Your task to perform on an android device: open app "Adobe Acrobat Reader: Edit PDF" (install if not already installed), go to login, and select forgot password Image 0: 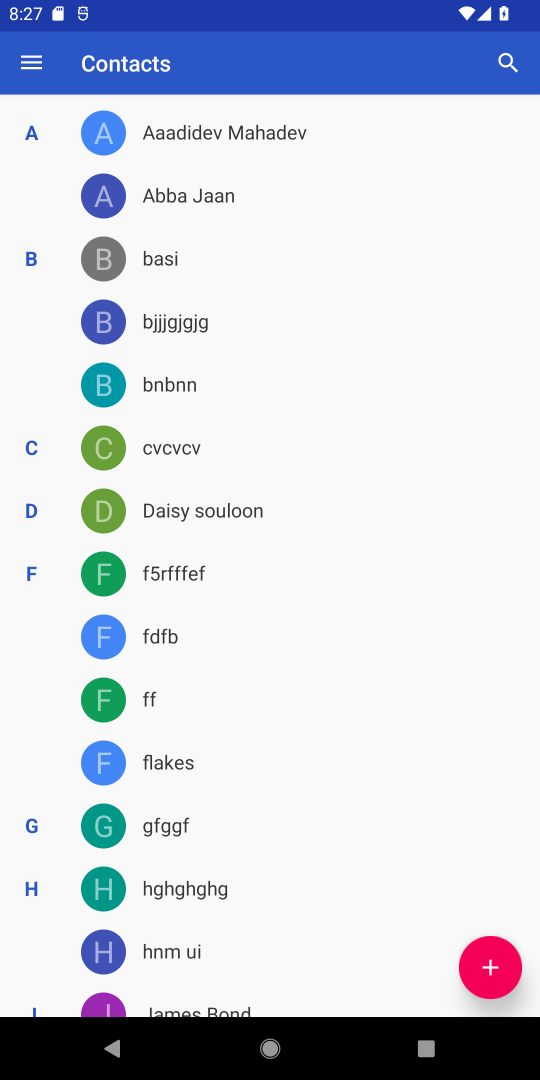
Step 0: press home button
Your task to perform on an android device: open app "Adobe Acrobat Reader: Edit PDF" (install if not already installed), go to login, and select forgot password Image 1: 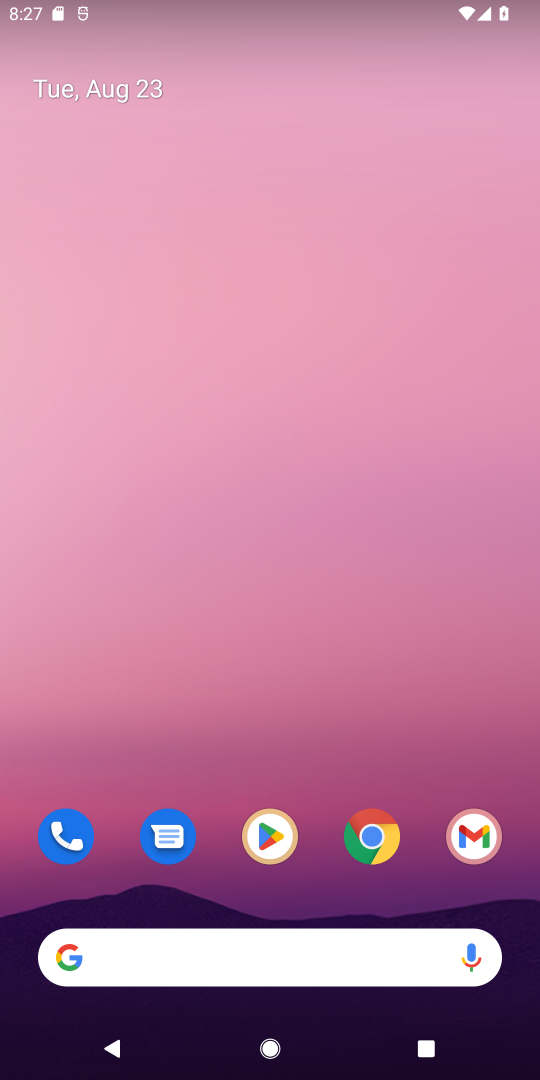
Step 1: click (276, 835)
Your task to perform on an android device: open app "Adobe Acrobat Reader: Edit PDF" (install if not already installed), go to login, and select forgot password Image 2: 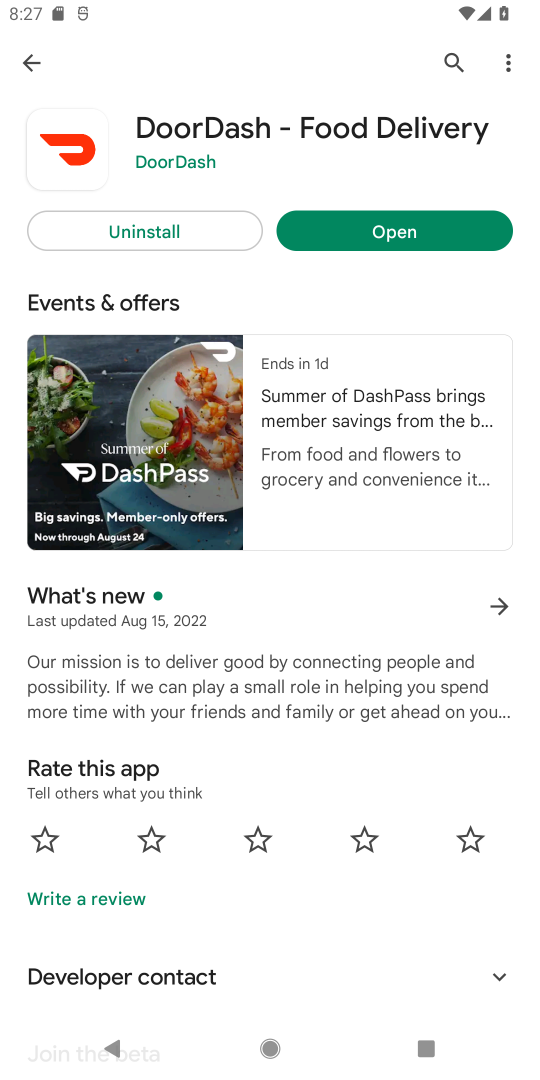
Step 2: click (449, 60)
Your task to perform on an android device: open app "Adobe Acrobat Reader: Edit PDF" (install if not already installed), go to login, and select forgot password Image 3: 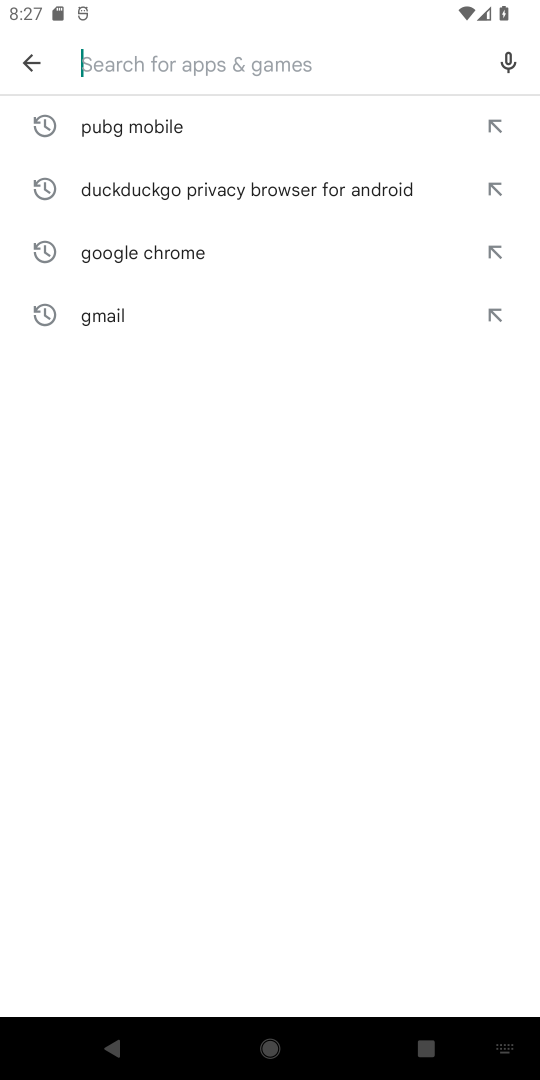
Step 3: type "Adobe Acrobat Reader: Edit PDF"
Your task to perform on an android device: open app "Adobe Acrobat Reader: Edit PDF" (install if not already installed), go to login, and select forgot password Image 4: 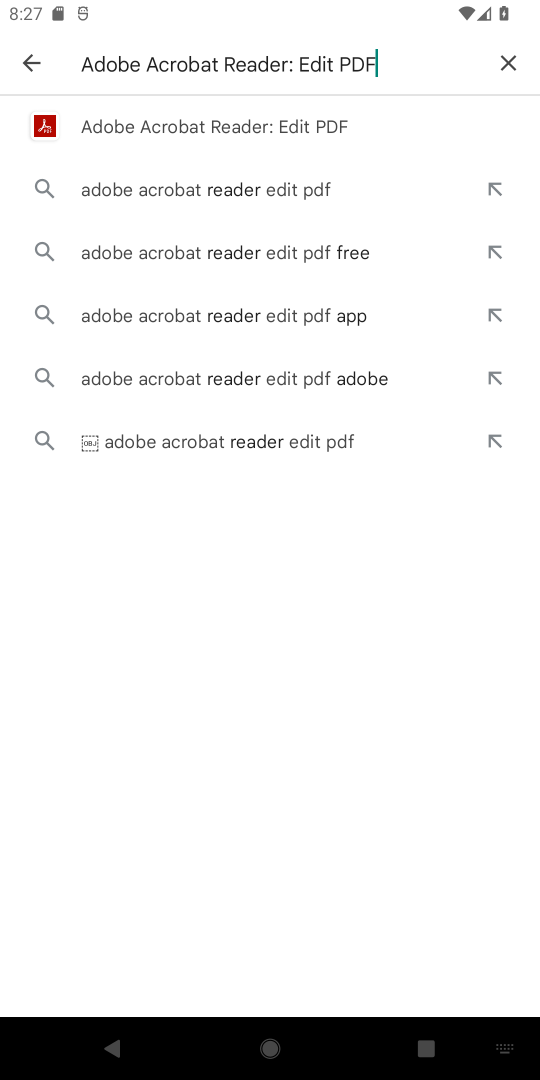
Step 4: click (138, 121)
Your task to perform on an android device: open app "Adobe Acrobat Reader: Edit PDF" (install if not already installed), go to login, and select forgot password Image 5: 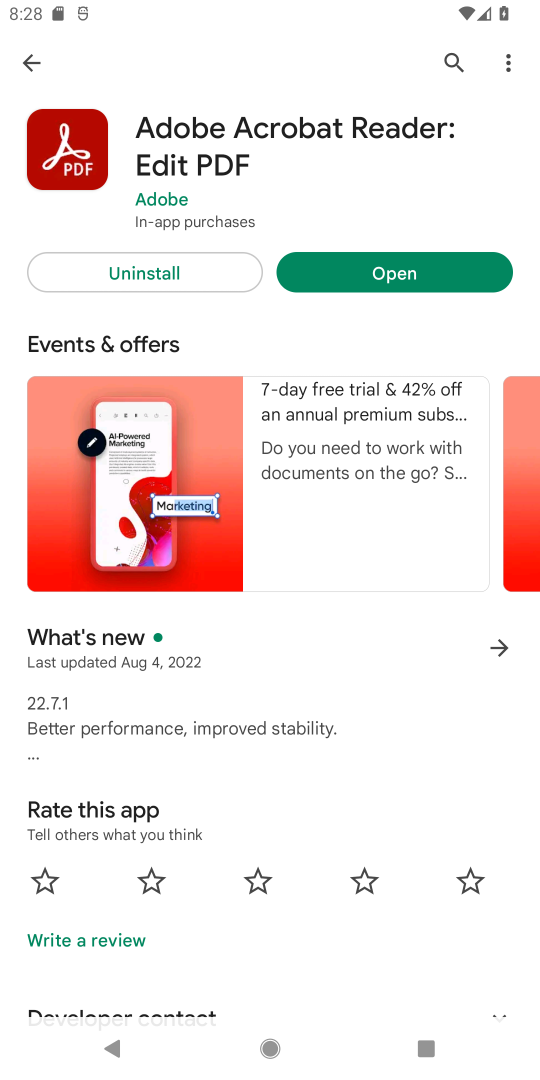
Step 5: click (405, 271)
Your task to perform on an android device: open app "Adobe Acrobat Reader: Edit PDF" (install if not already installed), go to login, and select forgot password Image 6: 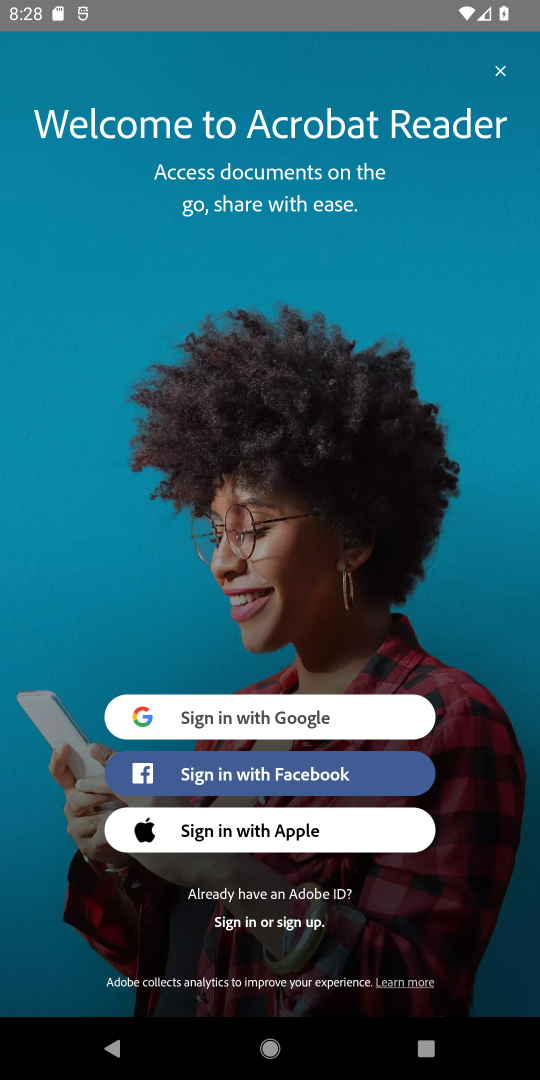
Step 6: click (257, 927)
Your task to perform on an android device: open app "Adobe Acrobat Reader: Edit PDF" (install if not already installed), go to login, and select forgot password Image 7: 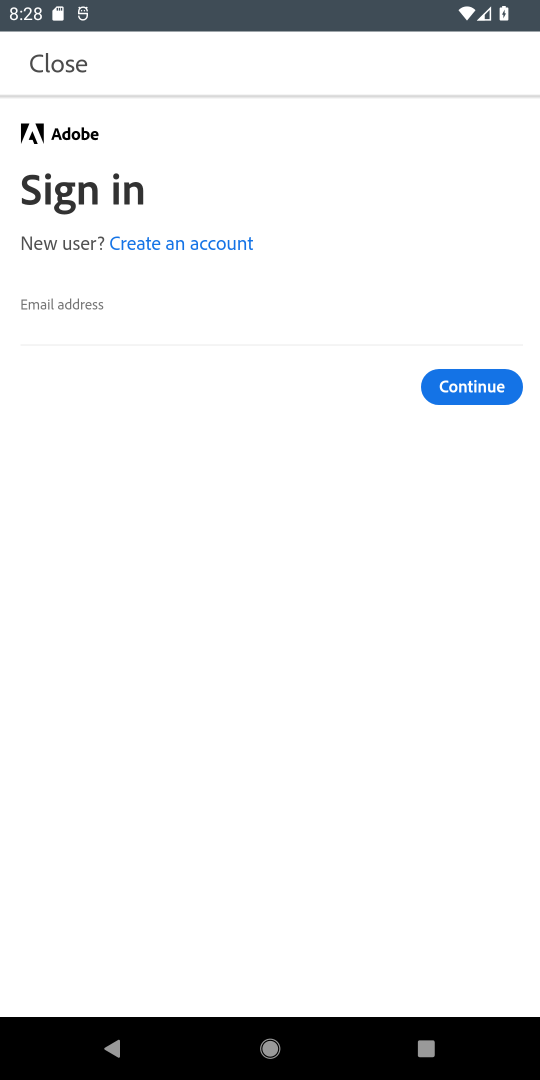
Step 7: task complete